Your task to perform on an android device: Toggle the flashlight Image 0: 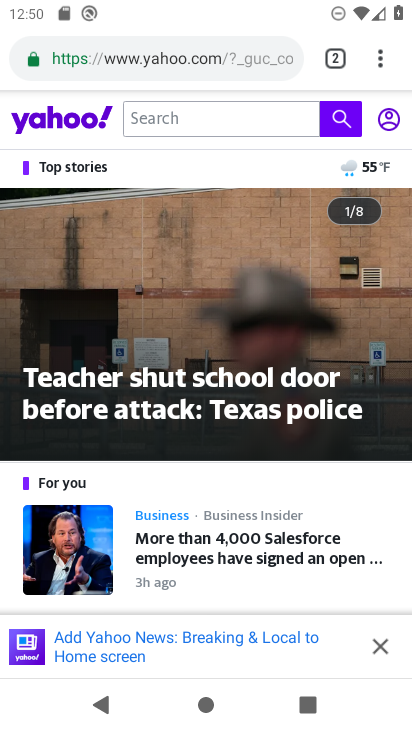
Step 0: press home button
Your task to perform on an android device: Toggle the flashlight Image 1: 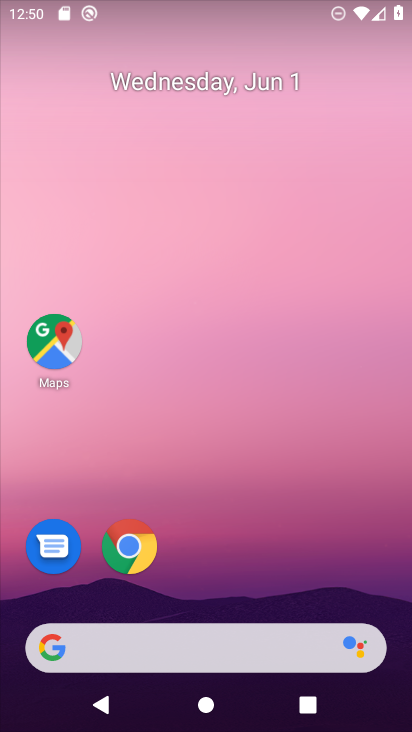
Step 1: drag from (263, 549) to (70, 79)
Your task to perform on an android device: Toggle the flashlight Image 2: 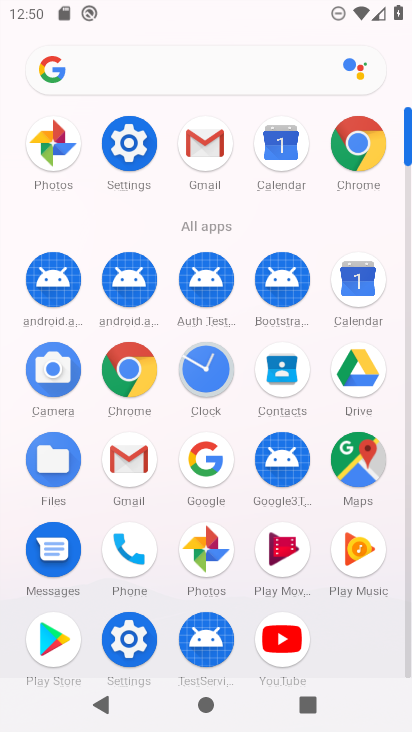
Step 2: click (135, 145)
Your task to perform on an android device: Toggle the flashlight Image 3: 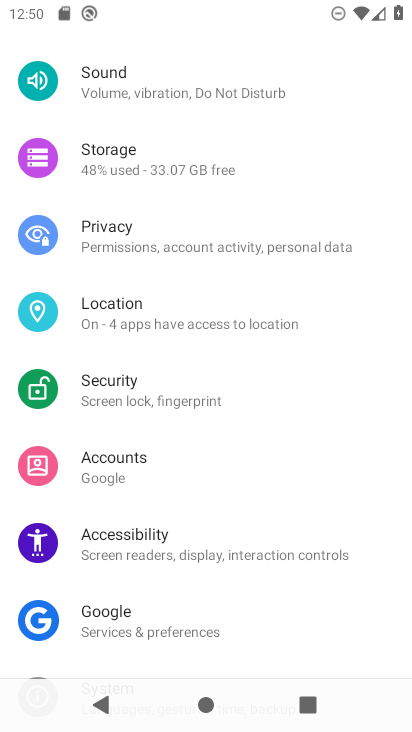
Step 3: drag from (135, 145) to (153, 503)
Your task to perform on an android device: Toggle the flashlight Image 4: 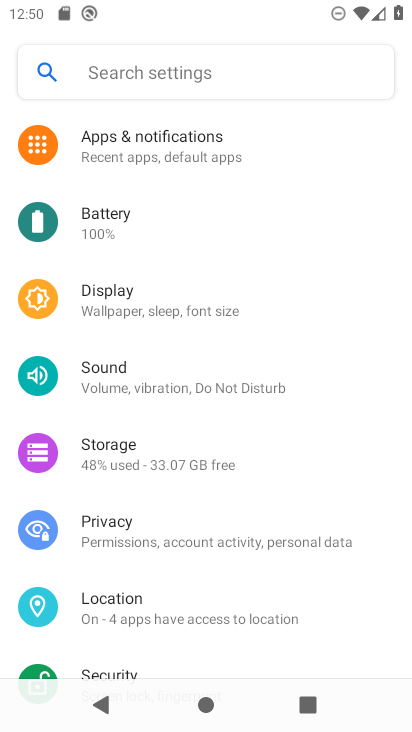
Step 4: click (214, 73)
Your task to perform on an android device: Toggle the flashlight Image 5: 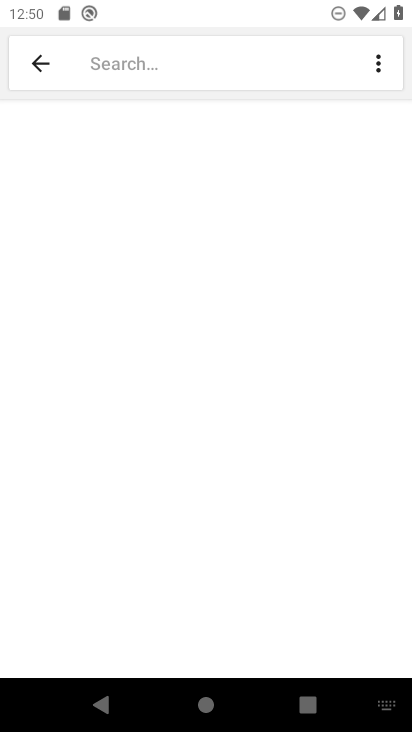
Step 5: type "flashlight"
Your task to perform on an android device: Toggle the flashlight Image 6: 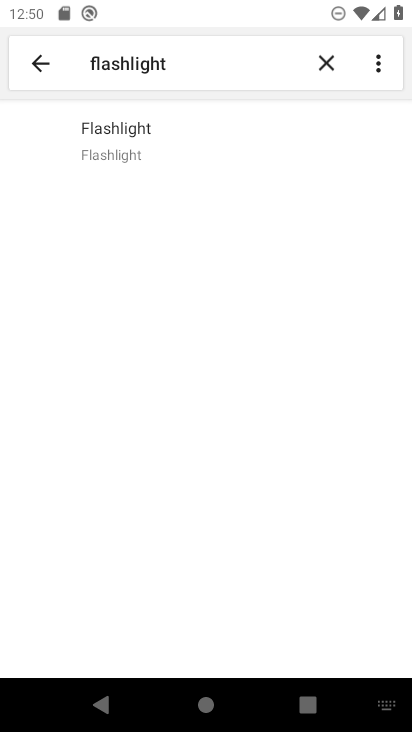
Step 6: click (168, 131)
Your task to perform on an android device: Toggle the flashlight Image 7: 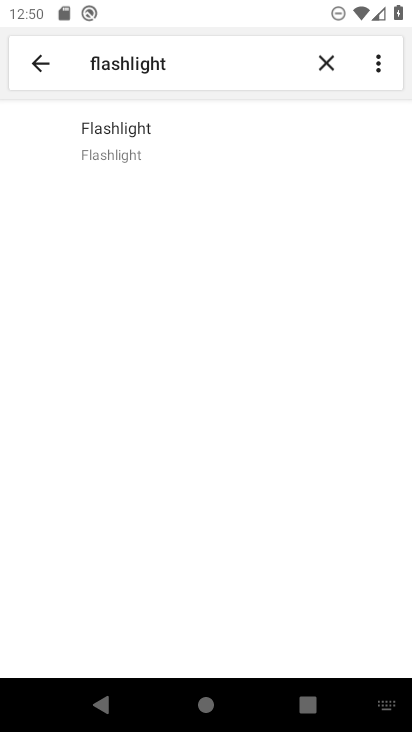
Step 7: click (129, 137)
Your task to perform on an android device: Toggle the flashlight Image 8: 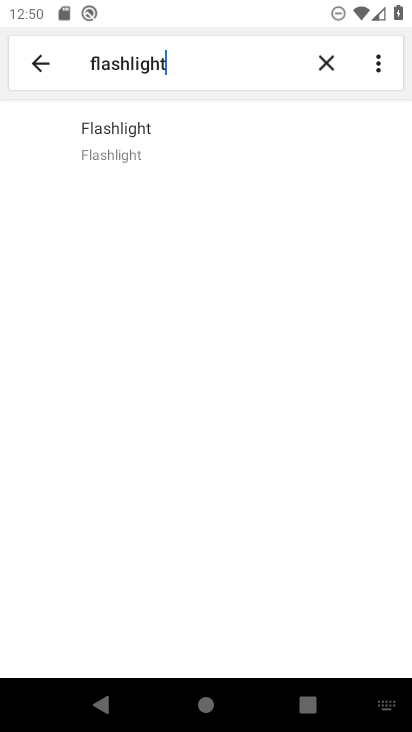
Step 8: click (129, 137)
Your task to perform on an android device: Toggle the flashlight Image 9: 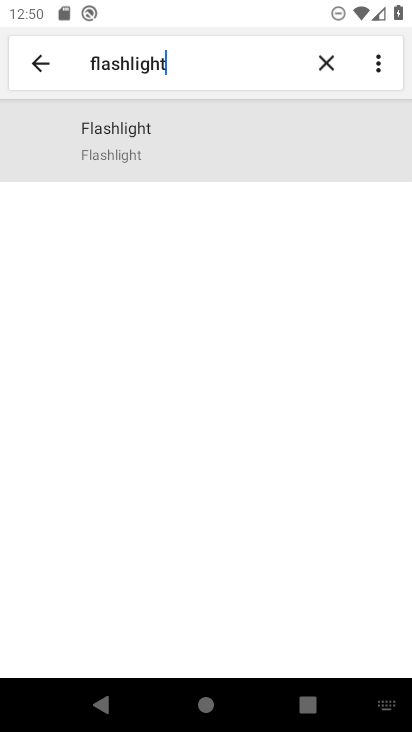
Step 9: click (129, 137)
Your task to perform on an android device: Toggle the flashlight Image 10: 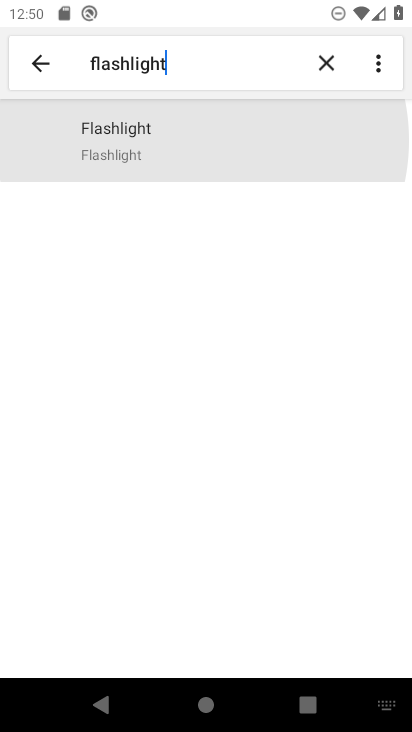
Step 10: click (129, 137)
Your task to perform on an android device: Toggle the flashlight Image 11: 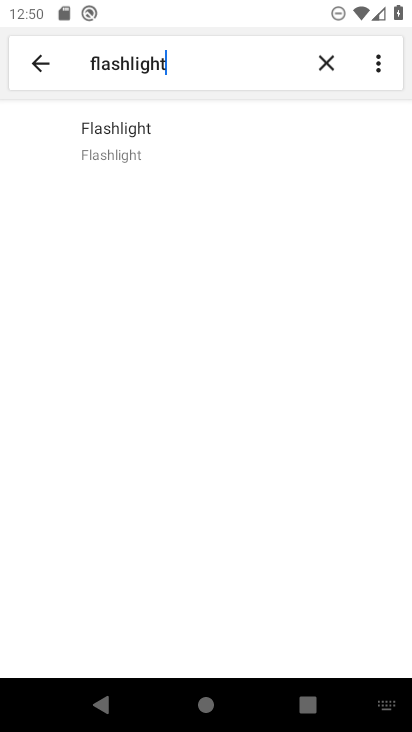
Step 11: click (129, 137)
Your task to perform on an android device: Toggle the flashlight Image 12: 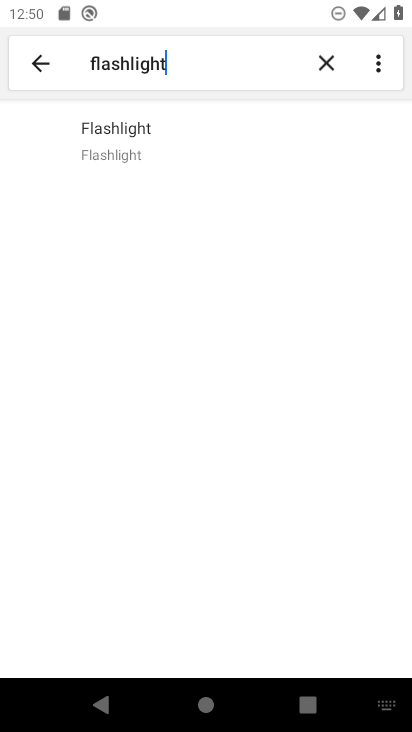
Step 12: task complete